Your task to perform on an android device: install app "Truecaller" Image 0: 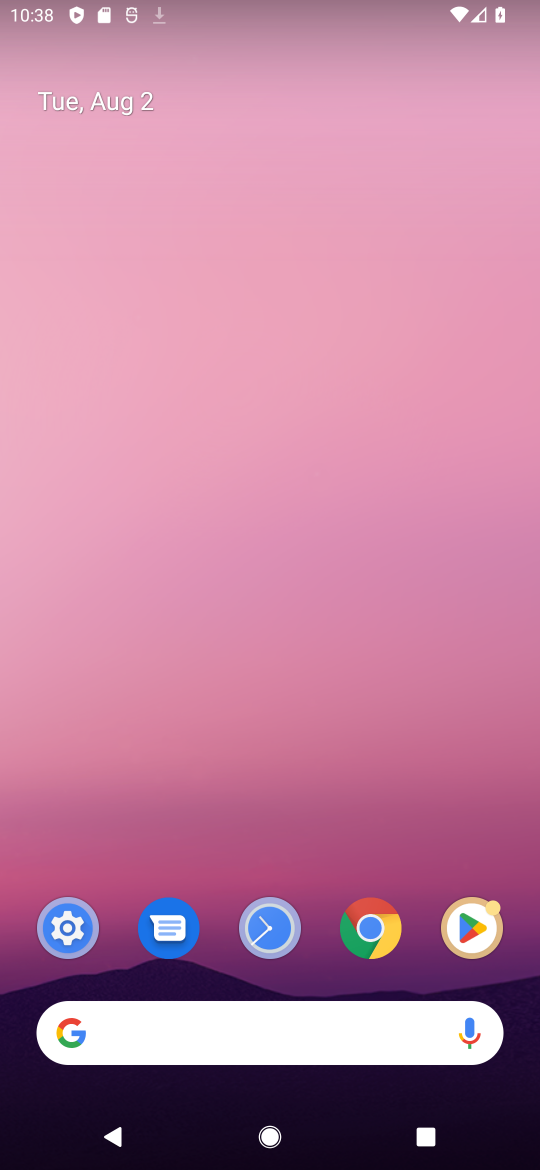
Step 0: click (475, 910)
Your task to perform on an android device: install app "Truecaller" Image 1: 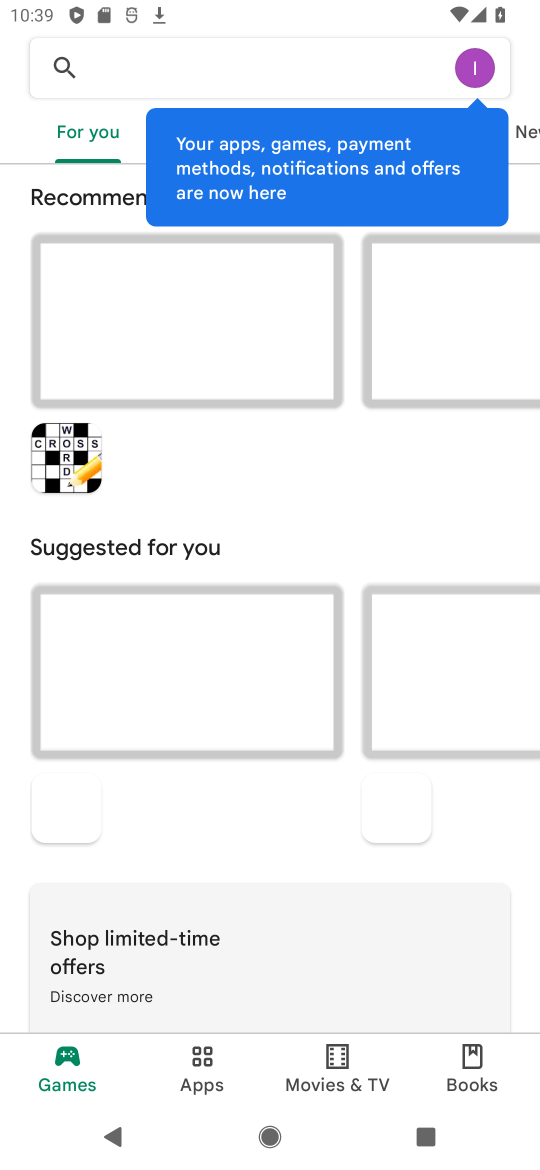
Step 1: click (287, 74)
Your task to perform on an android device: install app "Truecaller" Image 2: 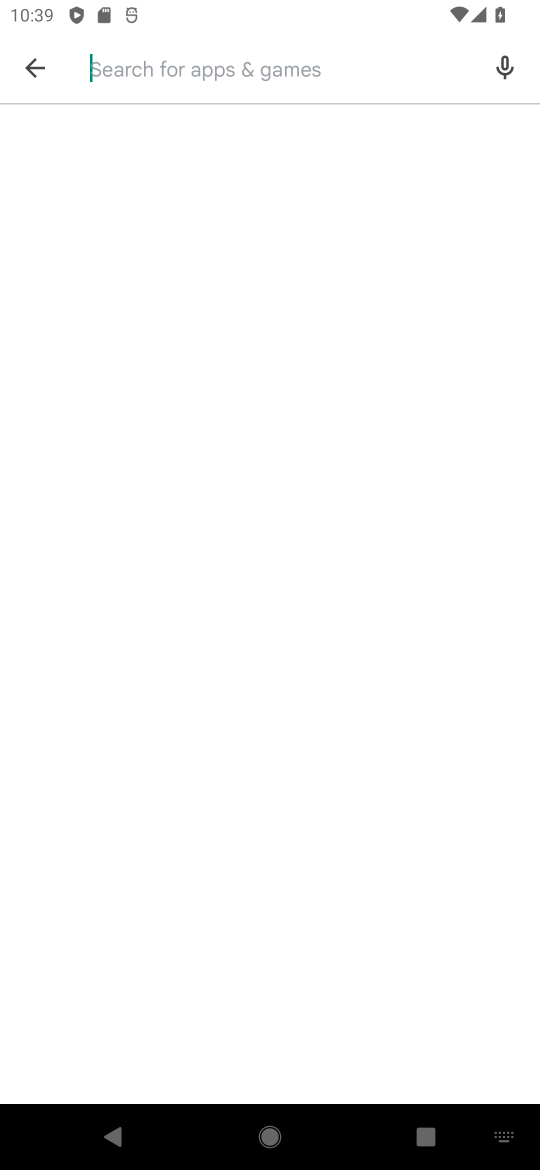
Step 2: type "truecller"
Your task to perform on an android device: install app "Truecaller" Image 3: 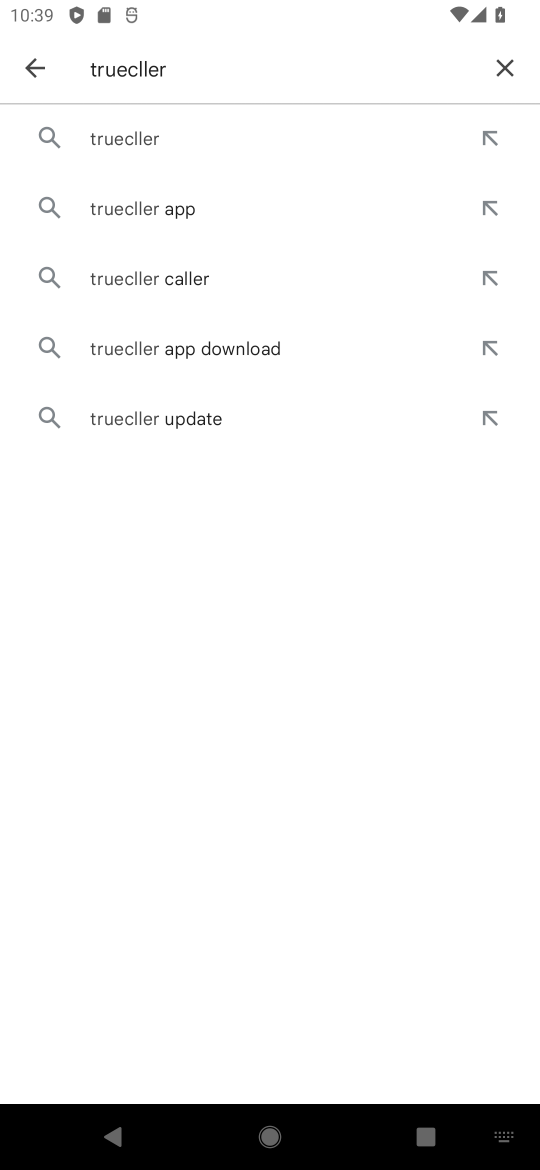
Step 3: click (195, 190)
Your task to perform on an android device: install app "Truecaller" Image 4: 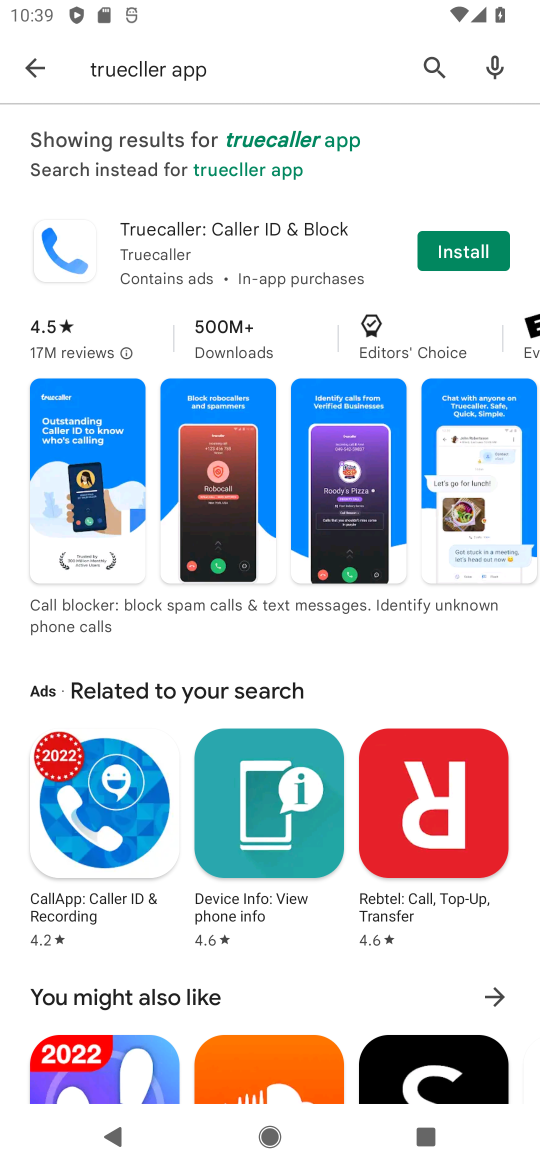
Step 4: click (231, 215)
Your task to perform on an android device: install app "Truecaller" Image 5: 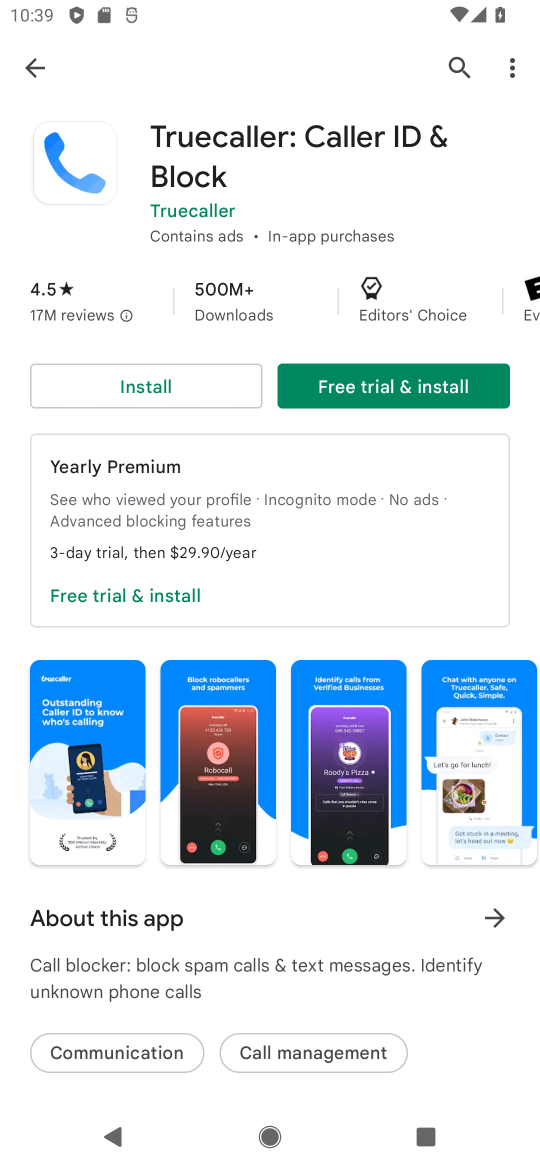
Step 5: click (165, 380)
Your task to perform on an android device: install app "Truecaller" Image 6: 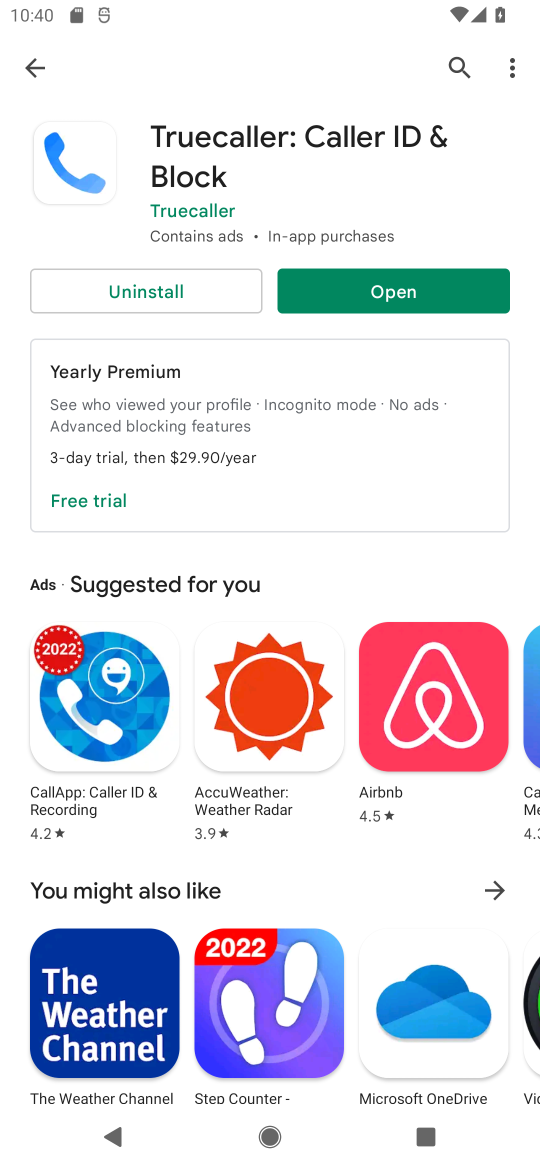
Step 6: task complete